Your task to perform on an android device: open a bookmark in the chrome app Image 0: 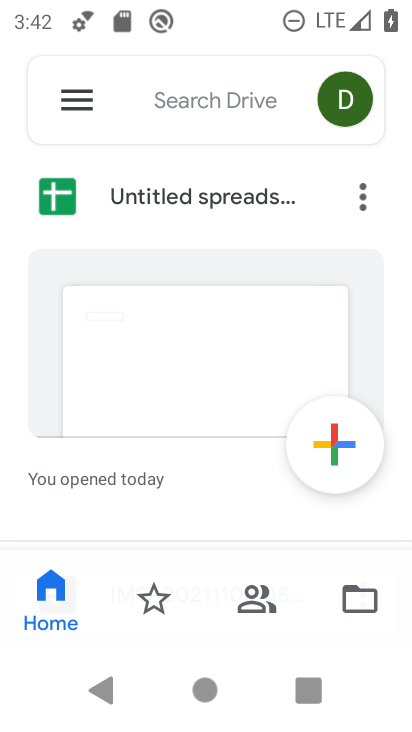
Step 0: press home button
Your task to perform on an android device: open a bookmark in the chrome app Image 1: 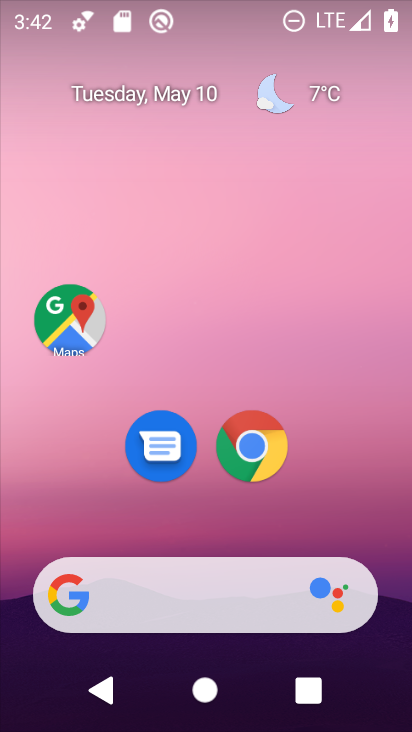
Step 1: click (248, 445)
Your task to perform on an android device: open a bookmark in the chrome app Image 2: 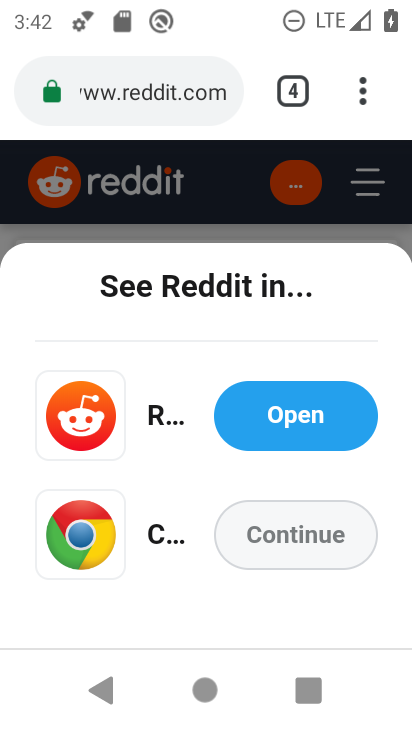
Step 2: click (365, 97)
Your task to perform on an android device: open a bookmark in the chrome app Image 3: 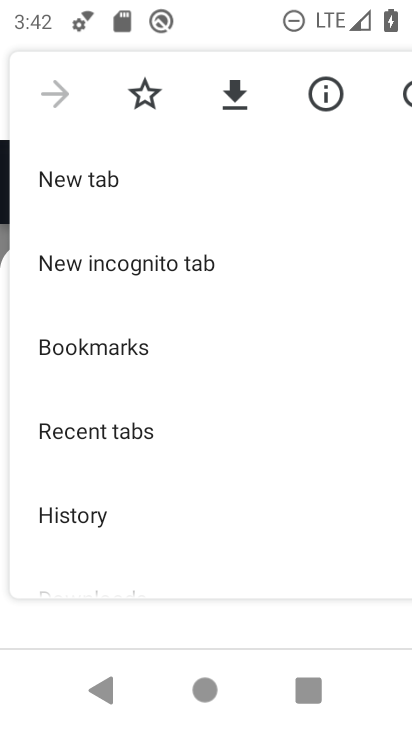
Step 3: click (88, 344)
Your task to perform on an android device: open a bookmark in the chrome app Image 4: 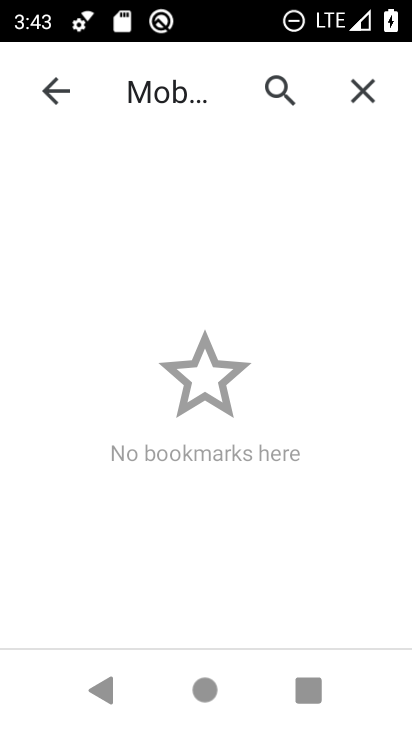
Step 4: task complete